Your task to perform on an android device: uninstall "Airtel Thanks" Image 0: 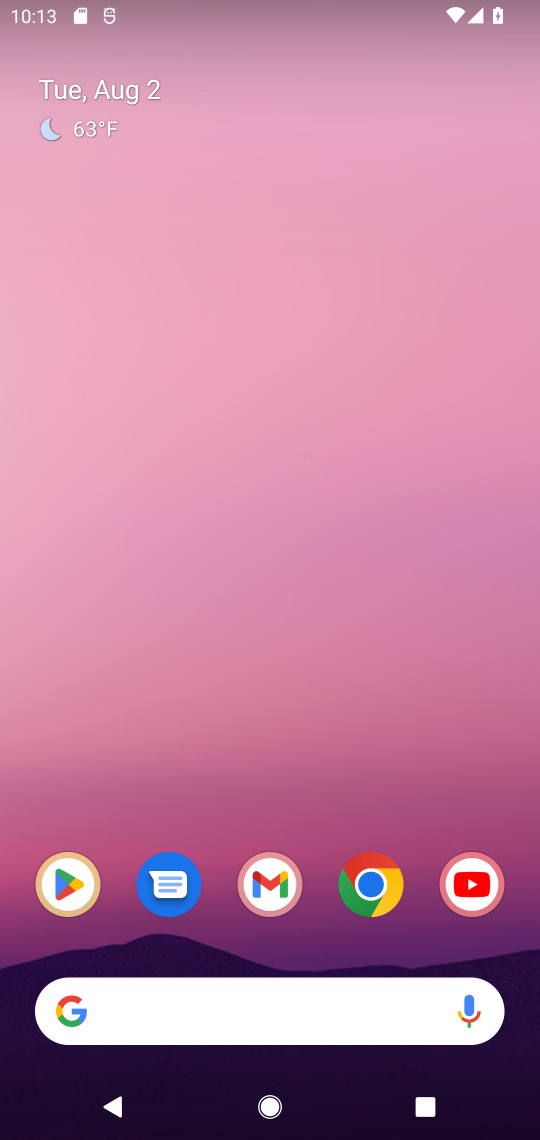
Step 0: click (80, 882)
Your task to perform on an android device: uninstall "Airtel Thanks" Image 1: 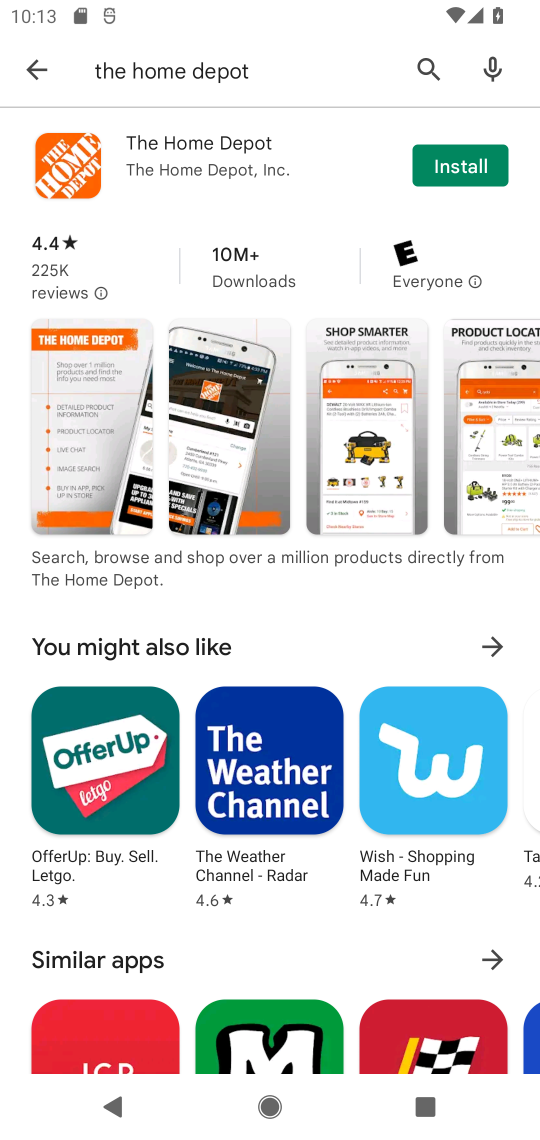
Step 1: click (205, 65)
Your task to perform on an android device: uninstall "Airtel Thanks" Image 2: 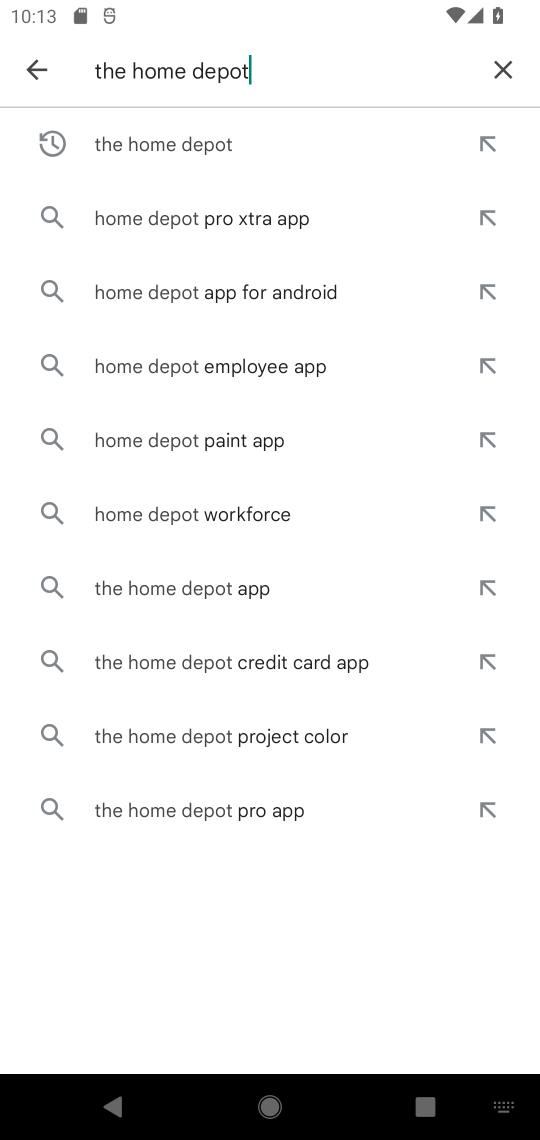
Step 2: click (501, 66)
Your task to perform on an android device: uninstall "Airtel Thanks" Image 3: 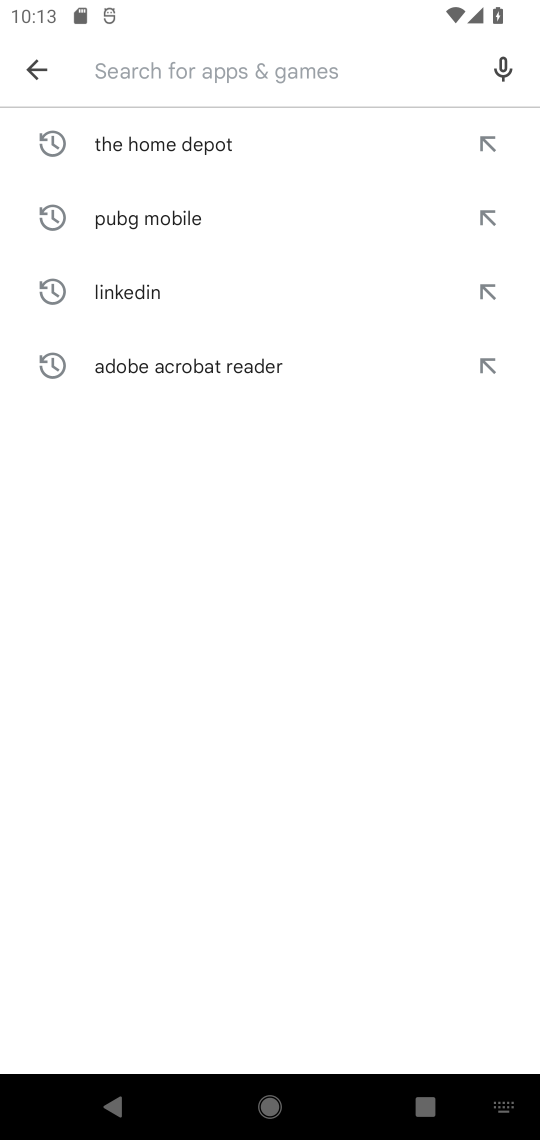
Step 3: type "Airtel Thanks"
Your task to perform on an android device: uninstall "Airtel Thanks" Image 4: 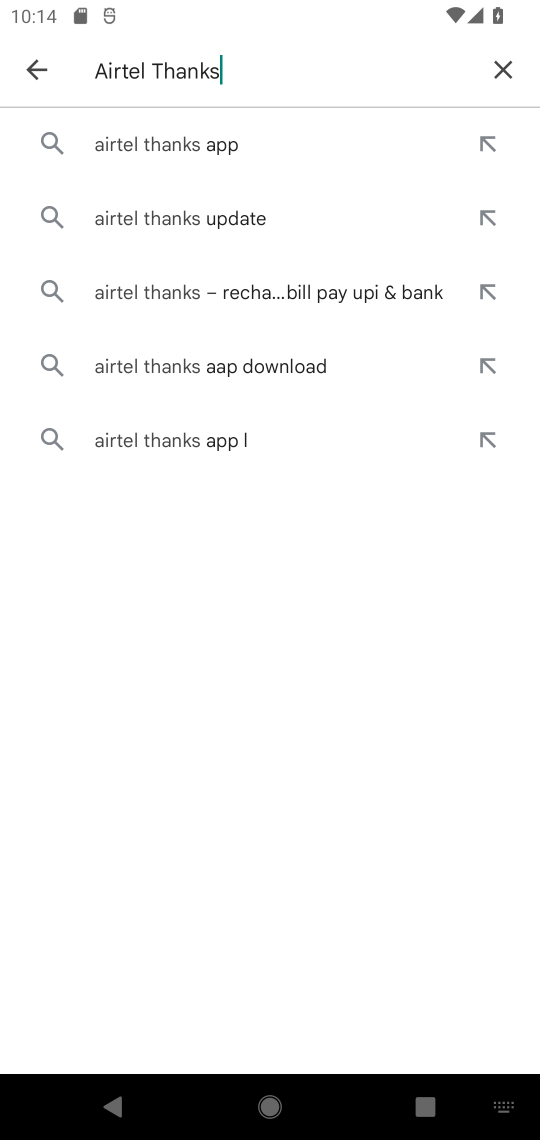
Step 4: click (200, 156)
Your task to perform on an android device: uninstall "Airtel Thanks" Image 5: 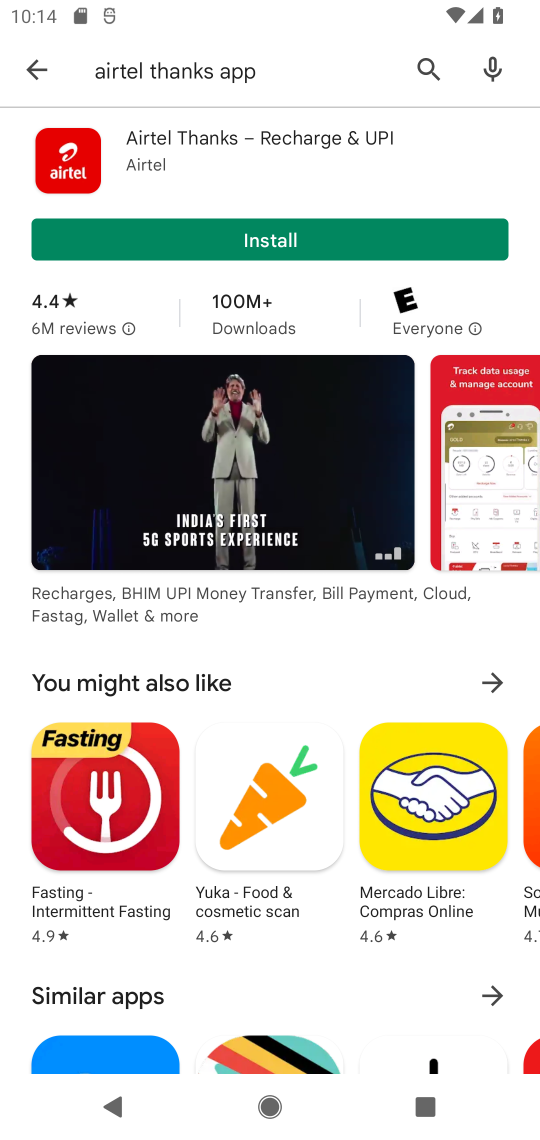
Step 5: task complete